Your task to perform on an android device: turn on location history Image 0: 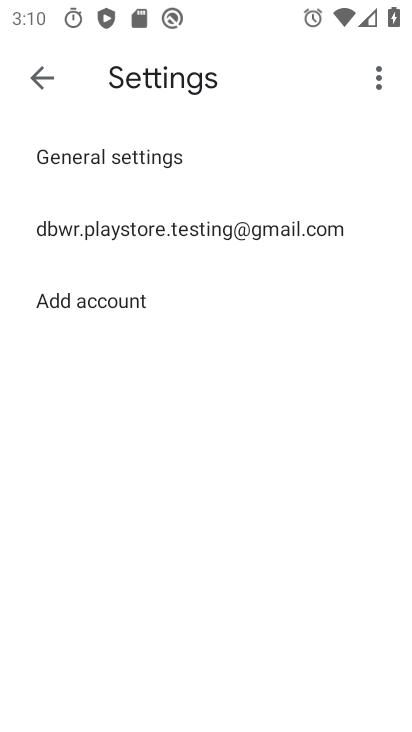
Step 0: press home button
Your task to perform on an android device: turn on location history Image 1: 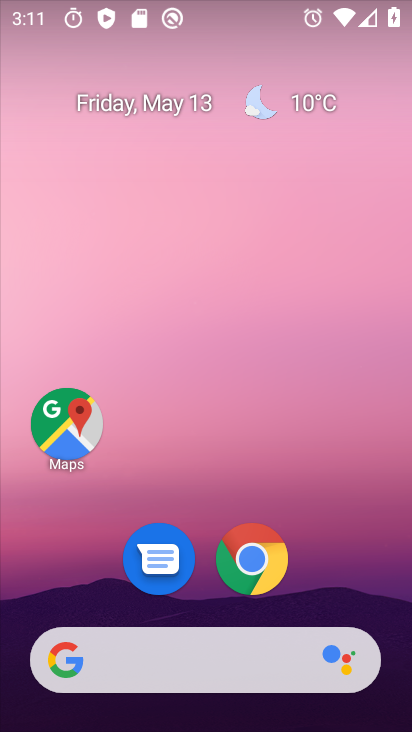
Step 1: drag from (180, 600) to (228, 216)
Your task to perform on an android device: turn on location history Image 2: 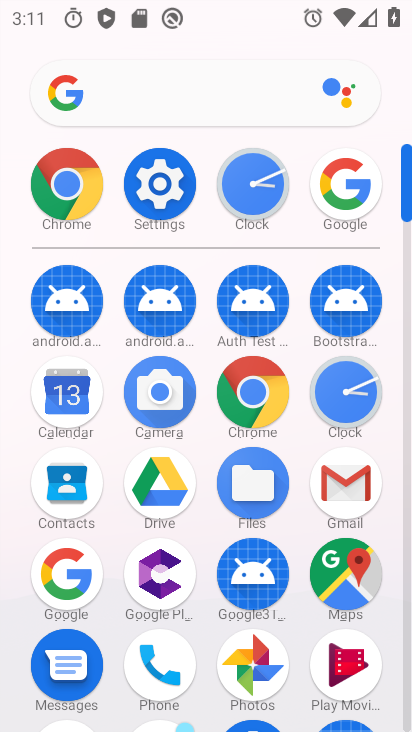
Step 2: click (150, 178)
Your task to perform on an android device: turn on location history Image 3: 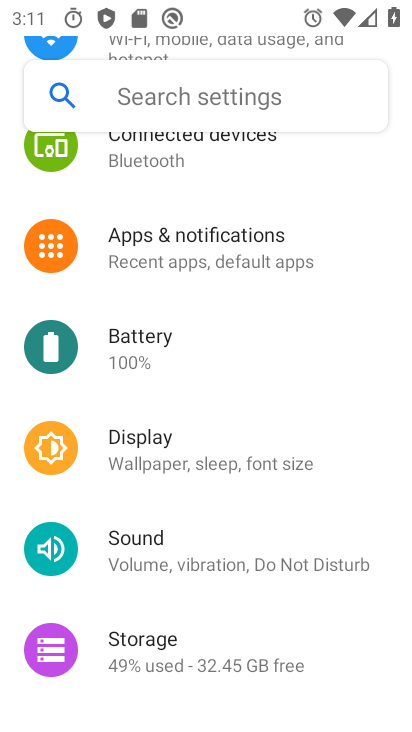
Step 3: drag from (205, 569) to (235, 441)
Your task to perform on an android device: turn on location history Image 4: 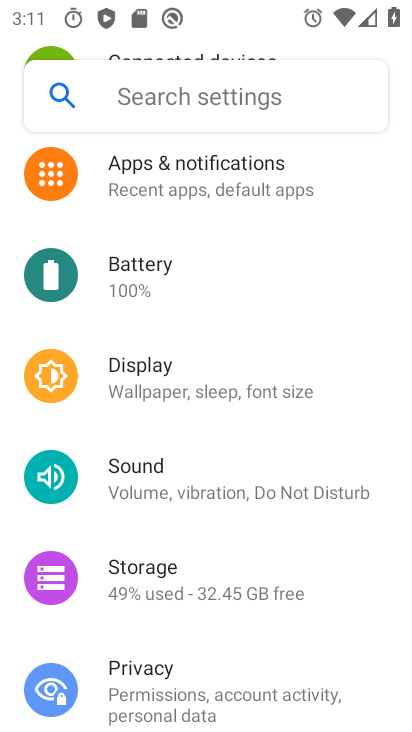
Step 4: drag from (178, 262) to (235, 252)
Your task to perform on an android device: turn on location history Image 5: 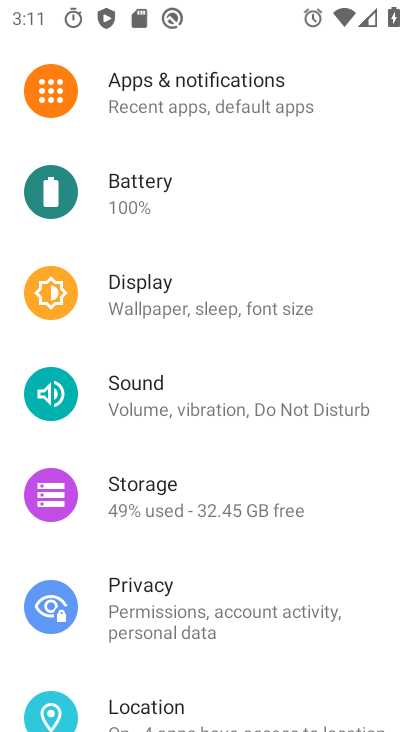
Step 5: click (241, 266)
Your task to perform on an android device: turn on location history Image 6: 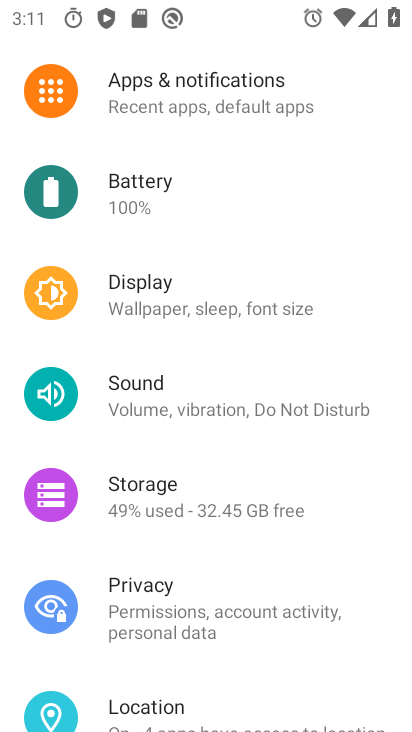
Step 6: click (170, 722)
Your task to perform on an android device: turn on location history Image 7: 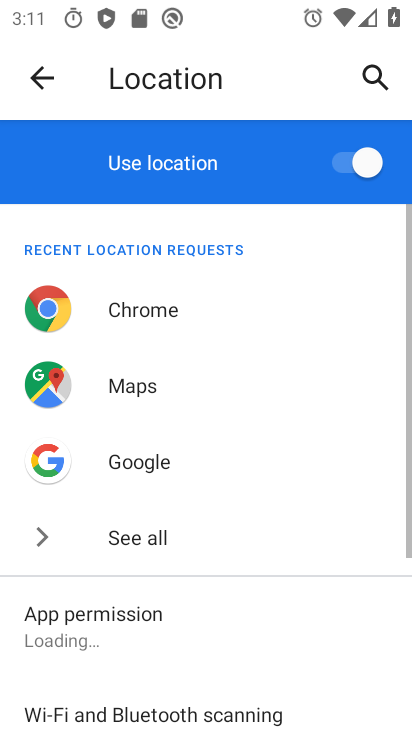
Step 7: drag from (182, 672) to (219, 371)
Your task to perform on an android device: turn on location history Image 8: 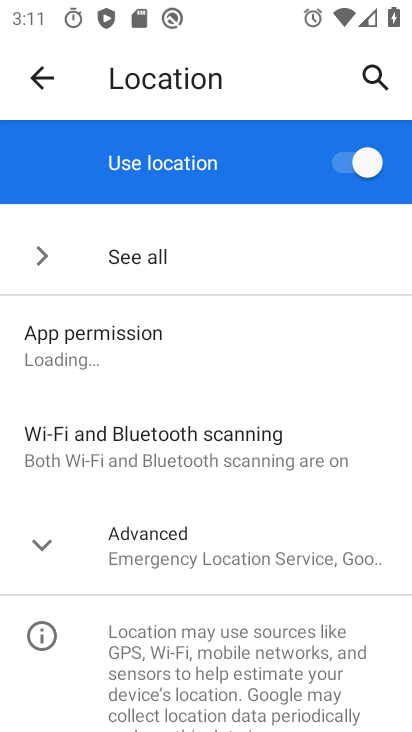
Step 8: click (168, 545)
Your task to perform on an android device: turn on location history Image 9: 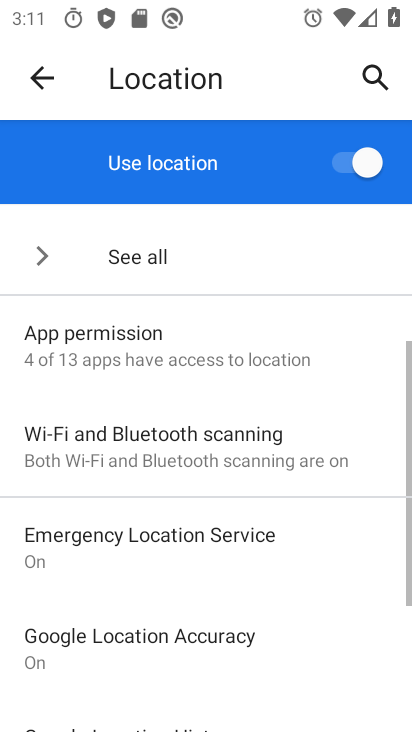
Step 9: drag from (227, 661) to (239, 391)
Your task to perform on an android device: turn on location history Image 10: 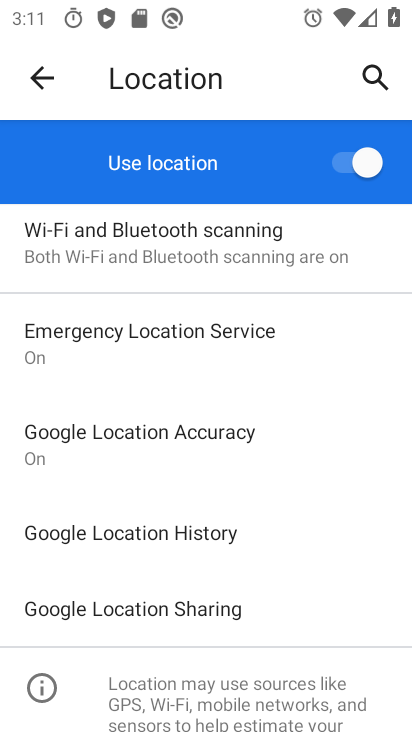
Step 10: click (230, 527)
Your task to perform on an android device: turn on location history Image 11: 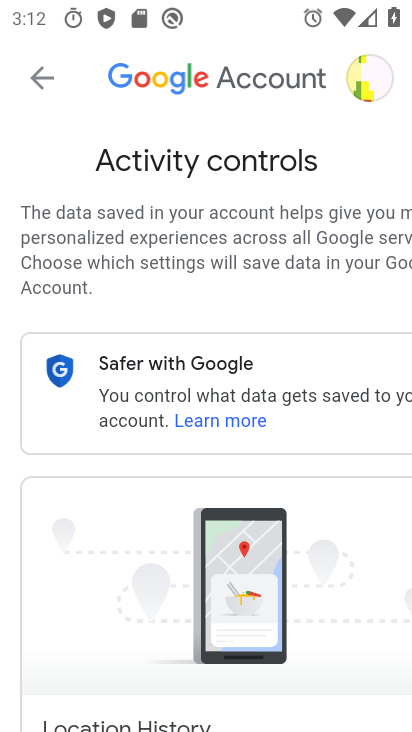
Step 11: task complete